Your task to perform on an android device: toggle notification dots Image 0: 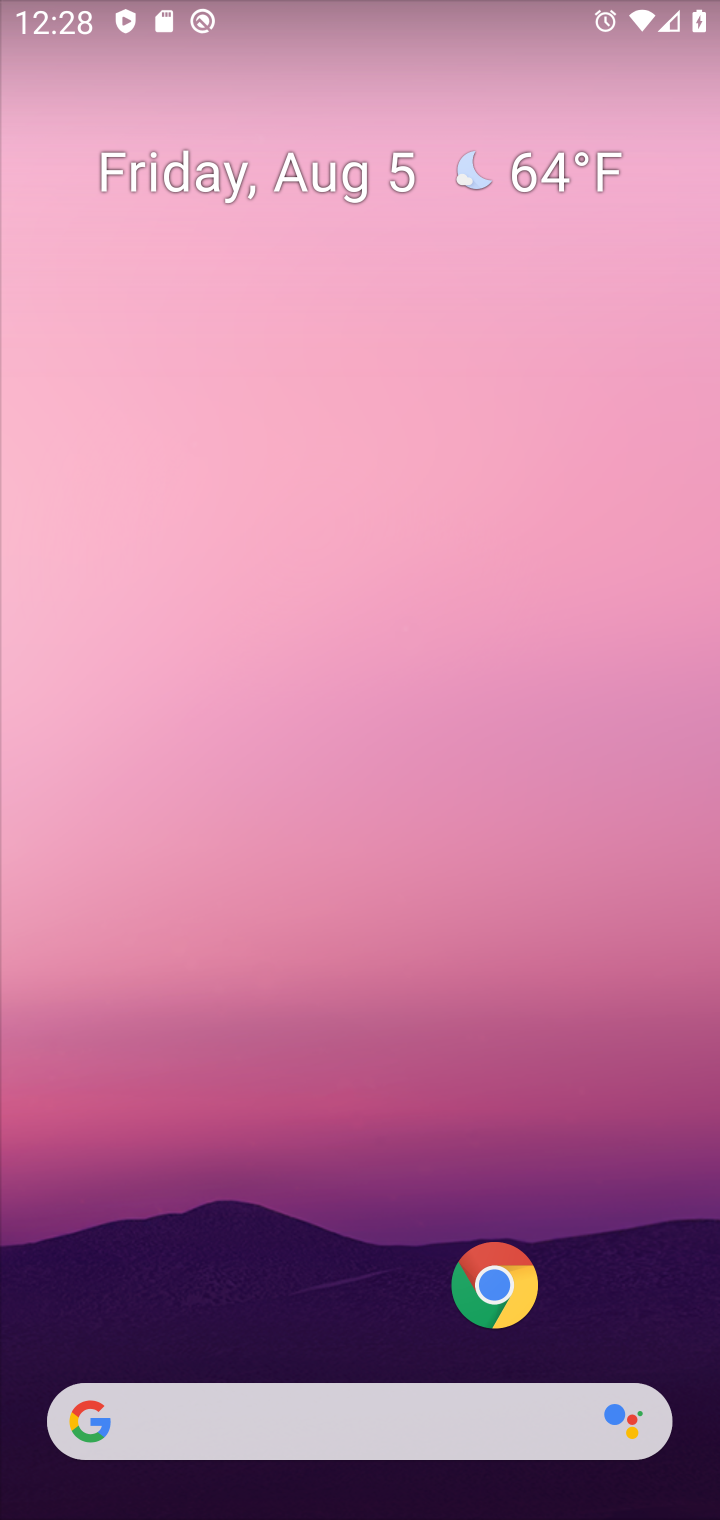
Step 0: drag from (267, 1117) to (389, 15)
Your task to perform on an android device: toggle notification dots Image 1: 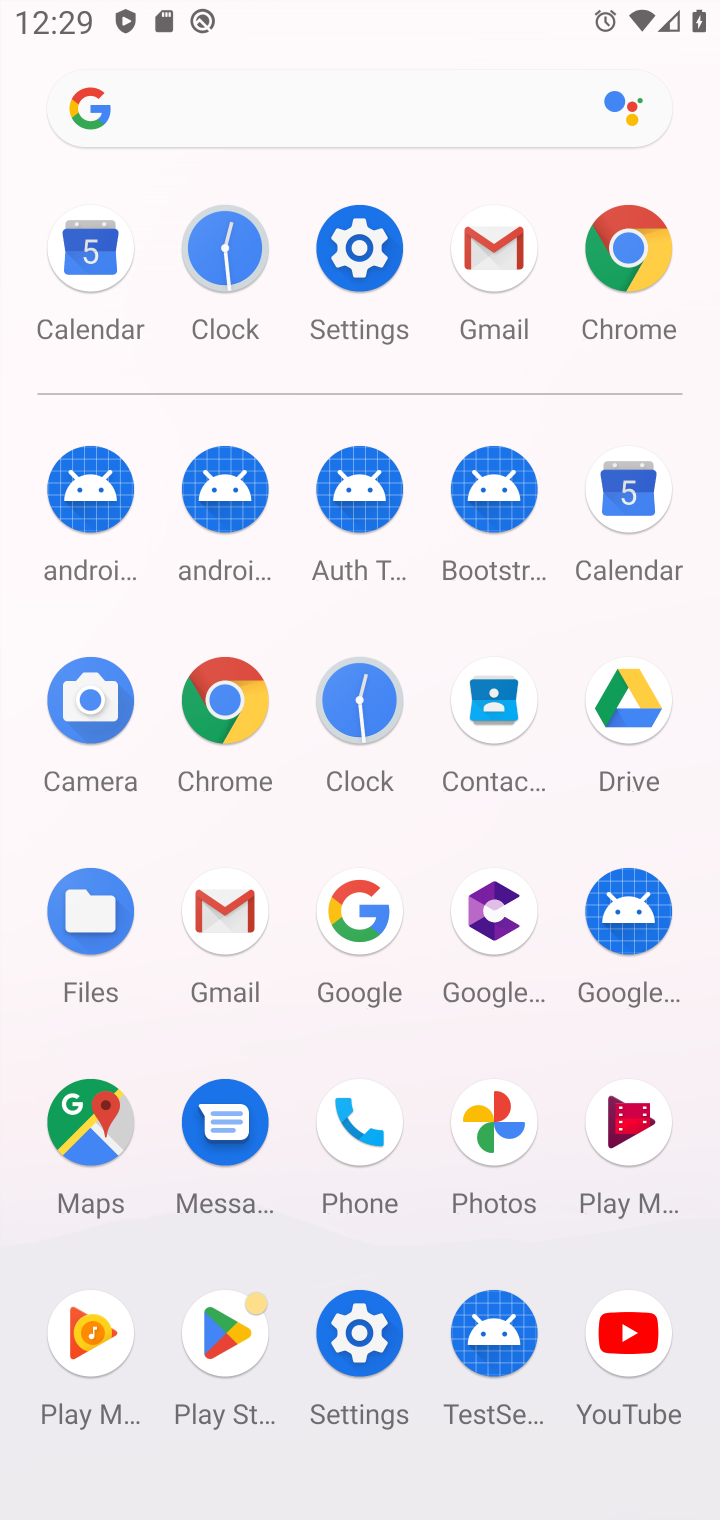
Step 1: click (374, 1332)
Your task to perform on an android device: toggle notification dots Image 2: 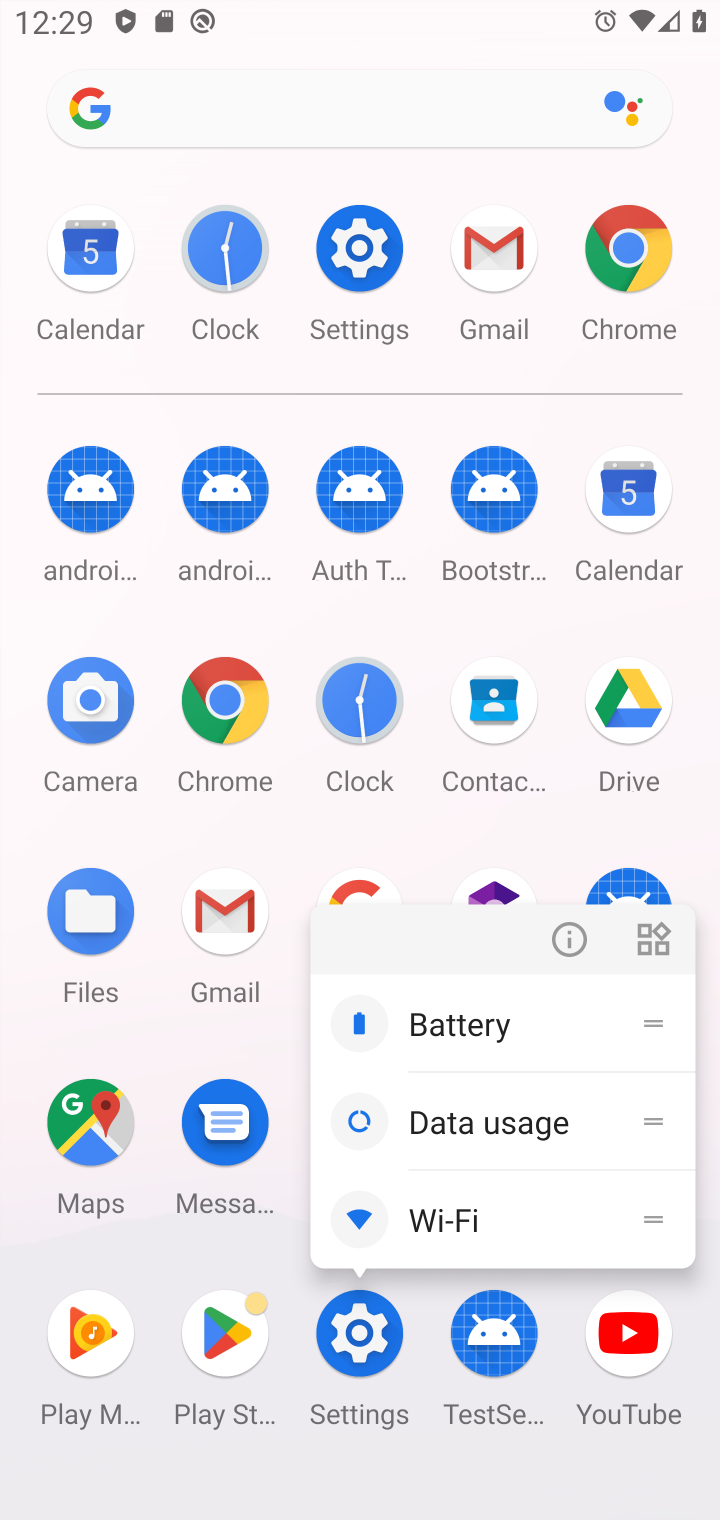
Step 2: click (358, 1358)
Your task to perform on an android device: toggle notification dots Image 3: 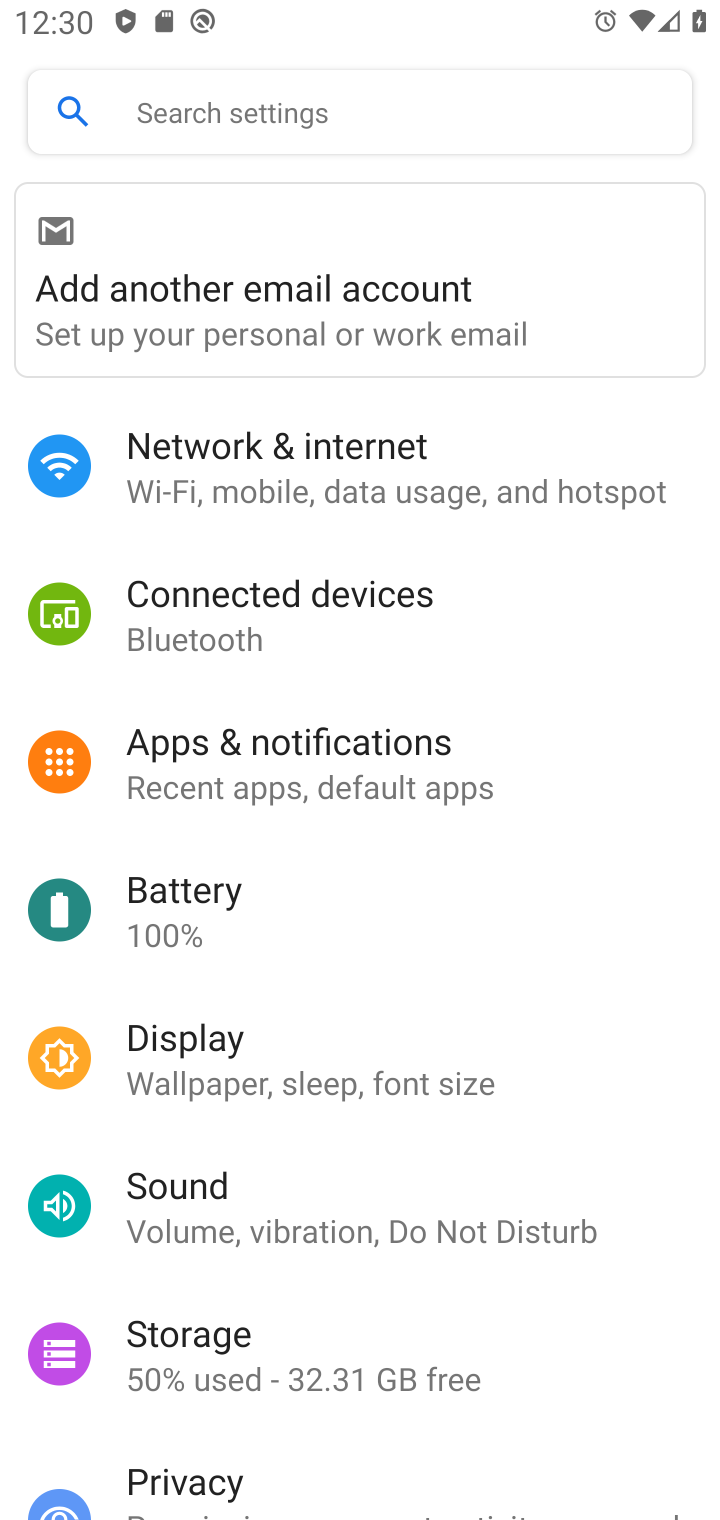
Step 3: drag from (171, 1436) to (167, 481)
Your task to perform on an android device: toggle notification dots Image 4: 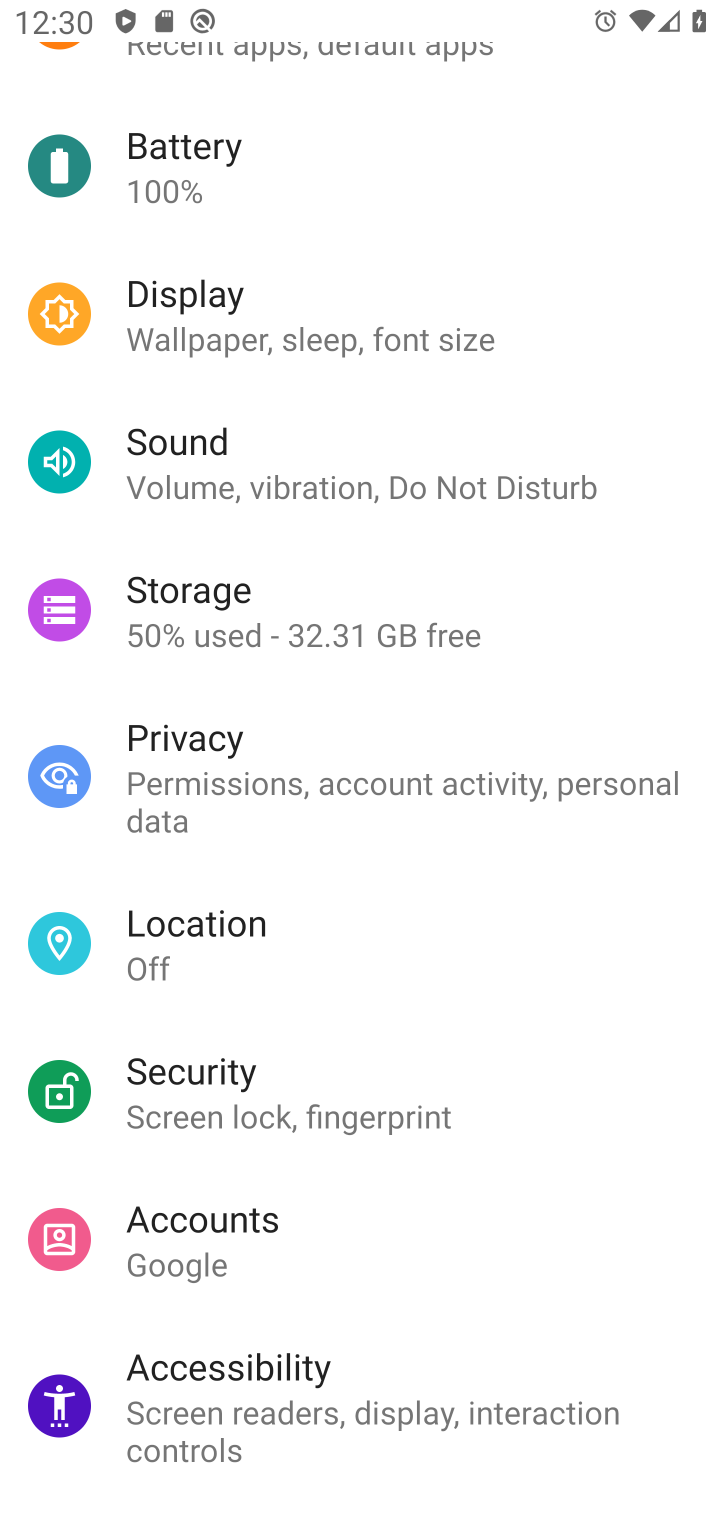
Step 4: drag from (397, 314) to (451, 1303)
Your task to perform on an android device: toggle notification dots Image 5: 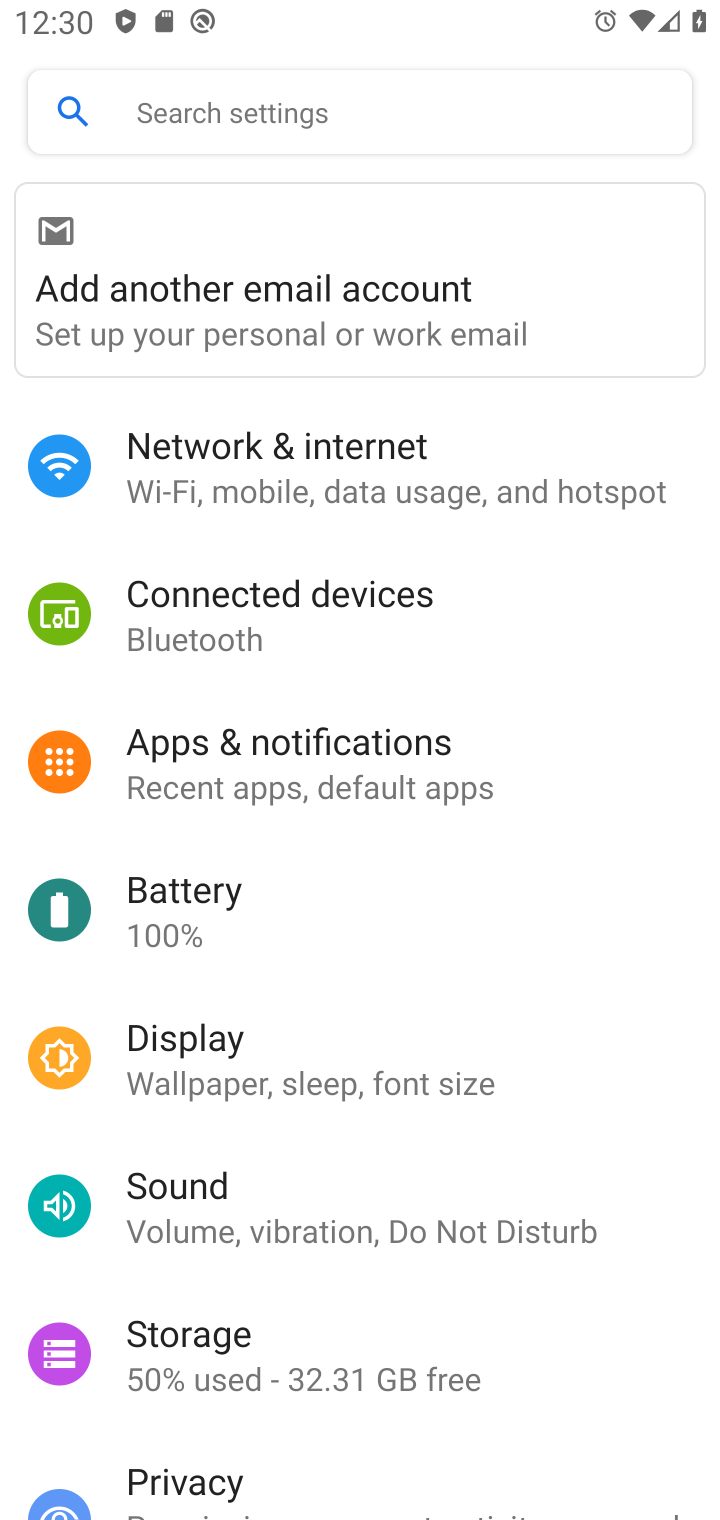
Step 5: click (223, 771)
Your task to perform on an android device: toggle notification dots Image 6: 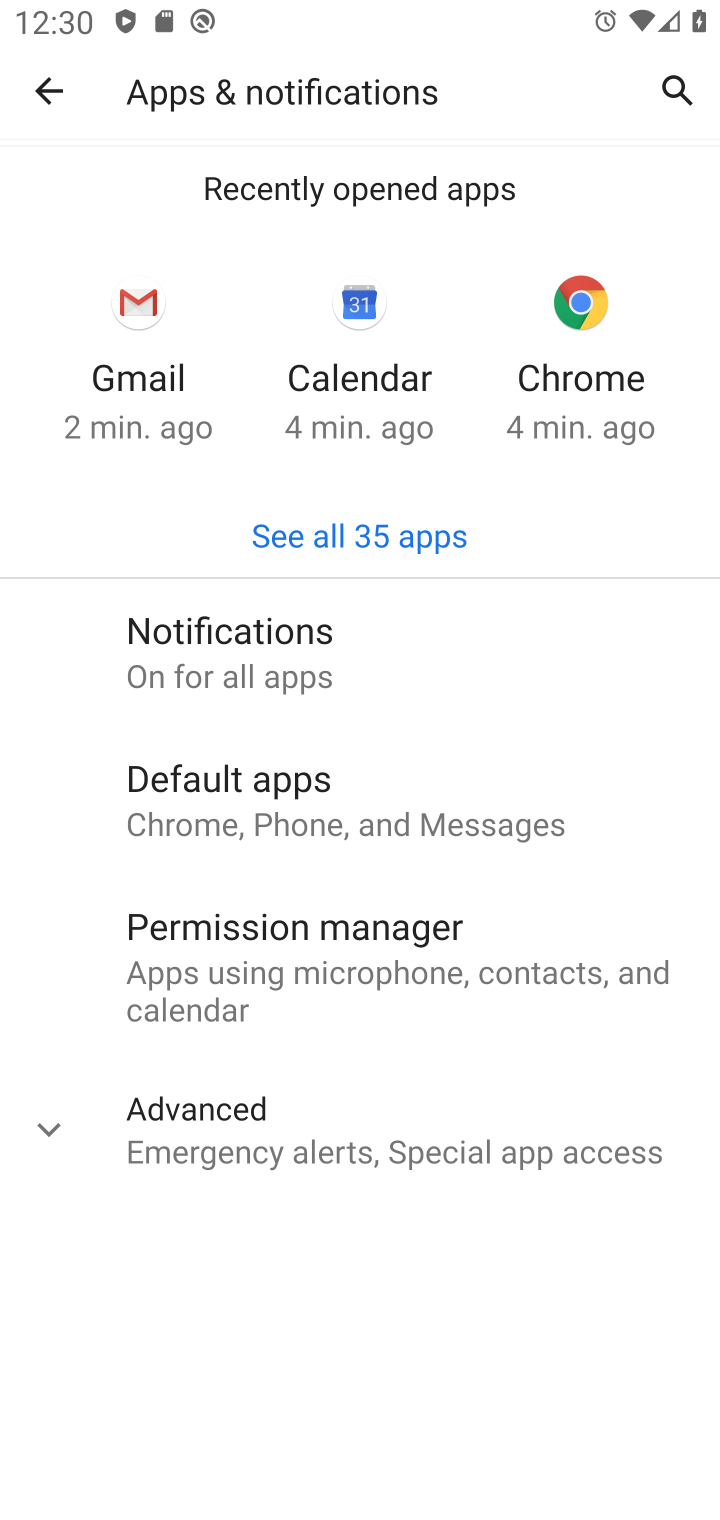
Step 6: click (228, 667)
Your task to perform on an android device: toggle notification dots Image 7: 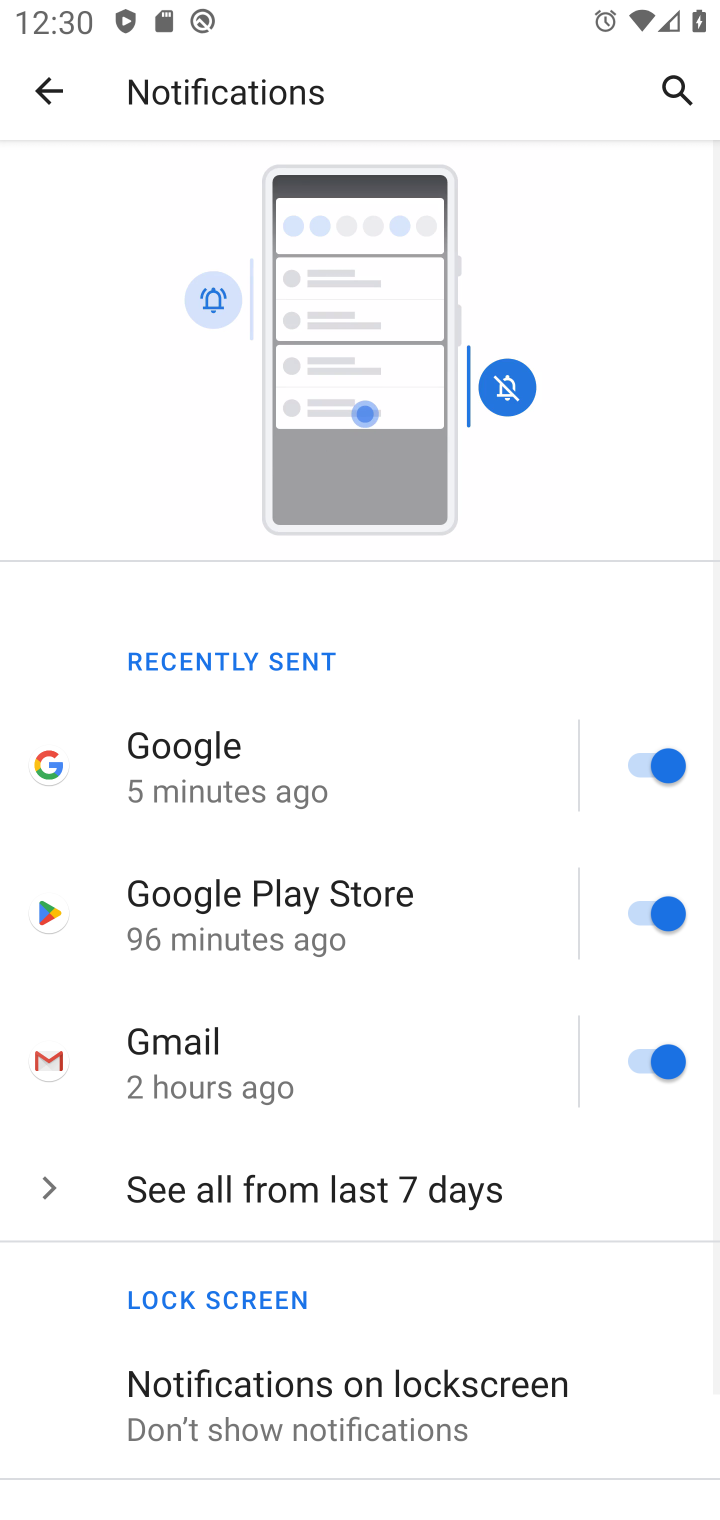
Step 7: drag from (357, 1374) to (99, 484)
Your task to perform on an android device: toggle notification dots Image 8: 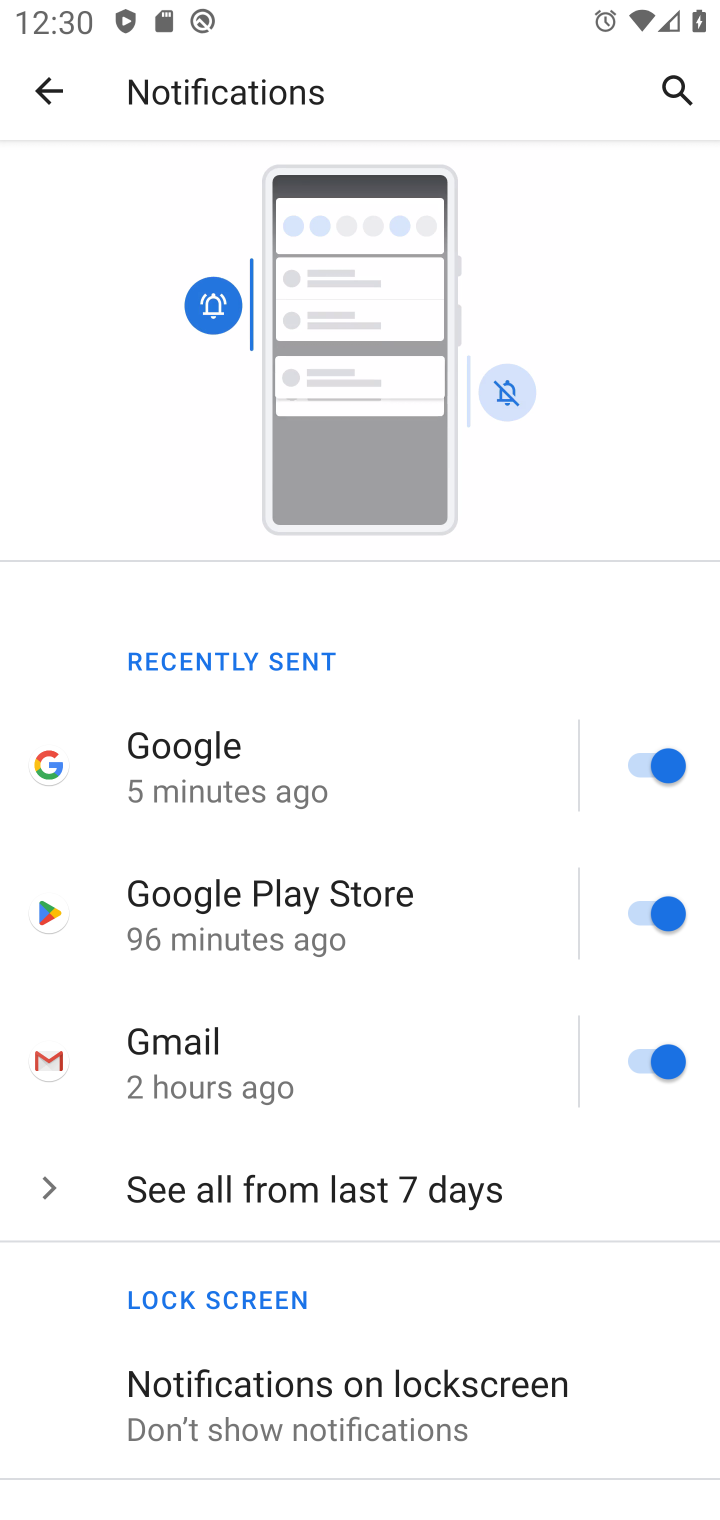
Step 8: click (370, 1420)
Your task to perform on an android device: toggle notification dots Image 9: 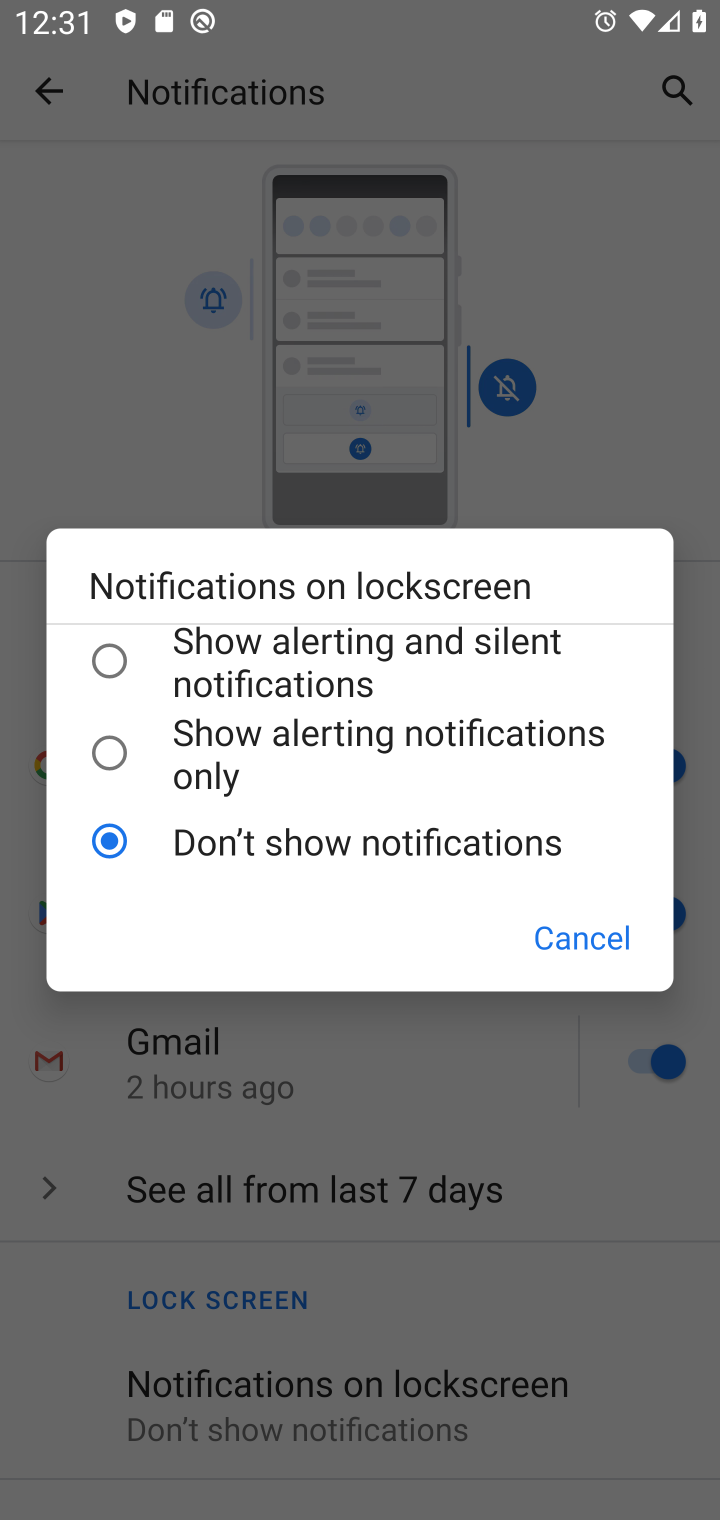
Step 9: click (580, 964)
Your task to perform on an android device: toggle notification dots Image 10: 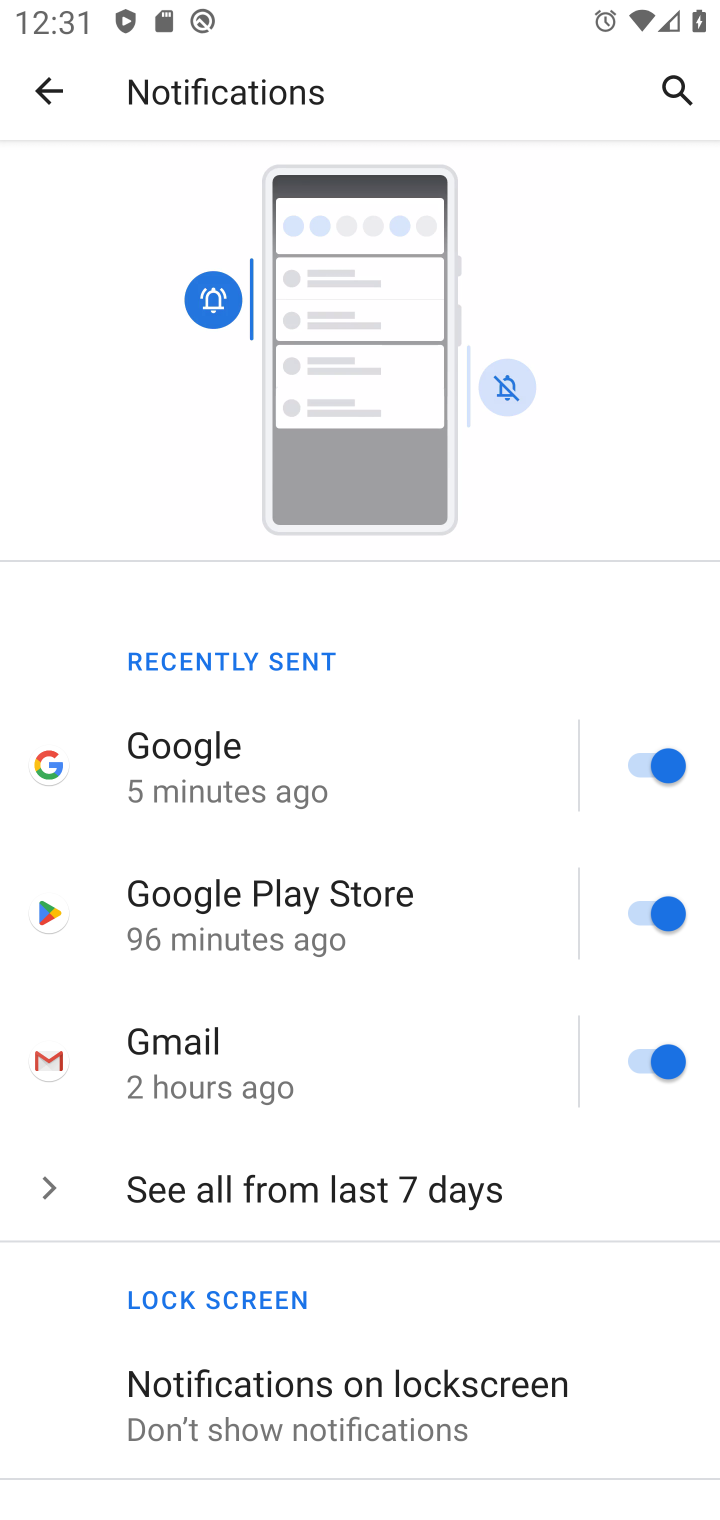
Step 10: drag from (439, 1260) to (430, 141)
Your task to perform on an android device: toggle notification dots Image 11: 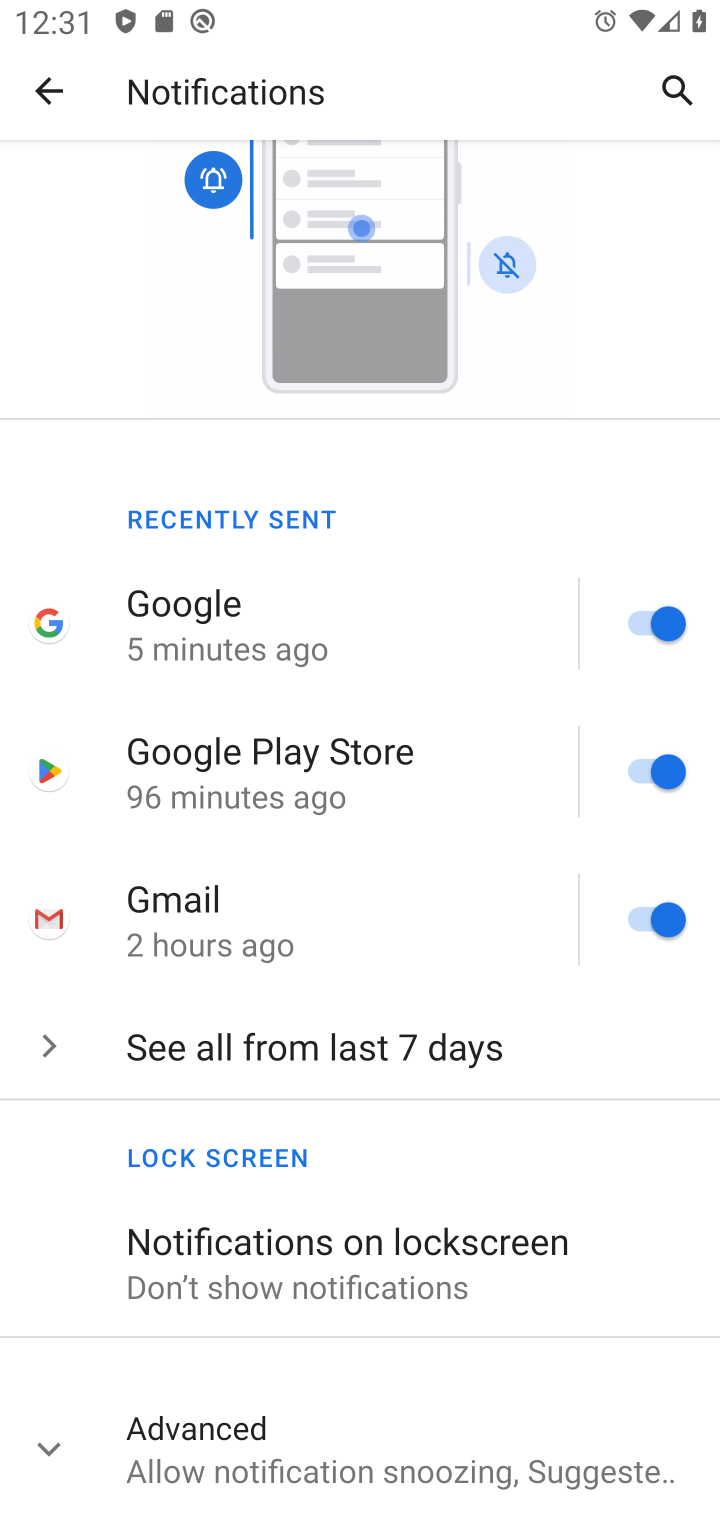
Step 11: click (181, 1467)
Your task to perform on an android device: toggle notification dots Image 12: 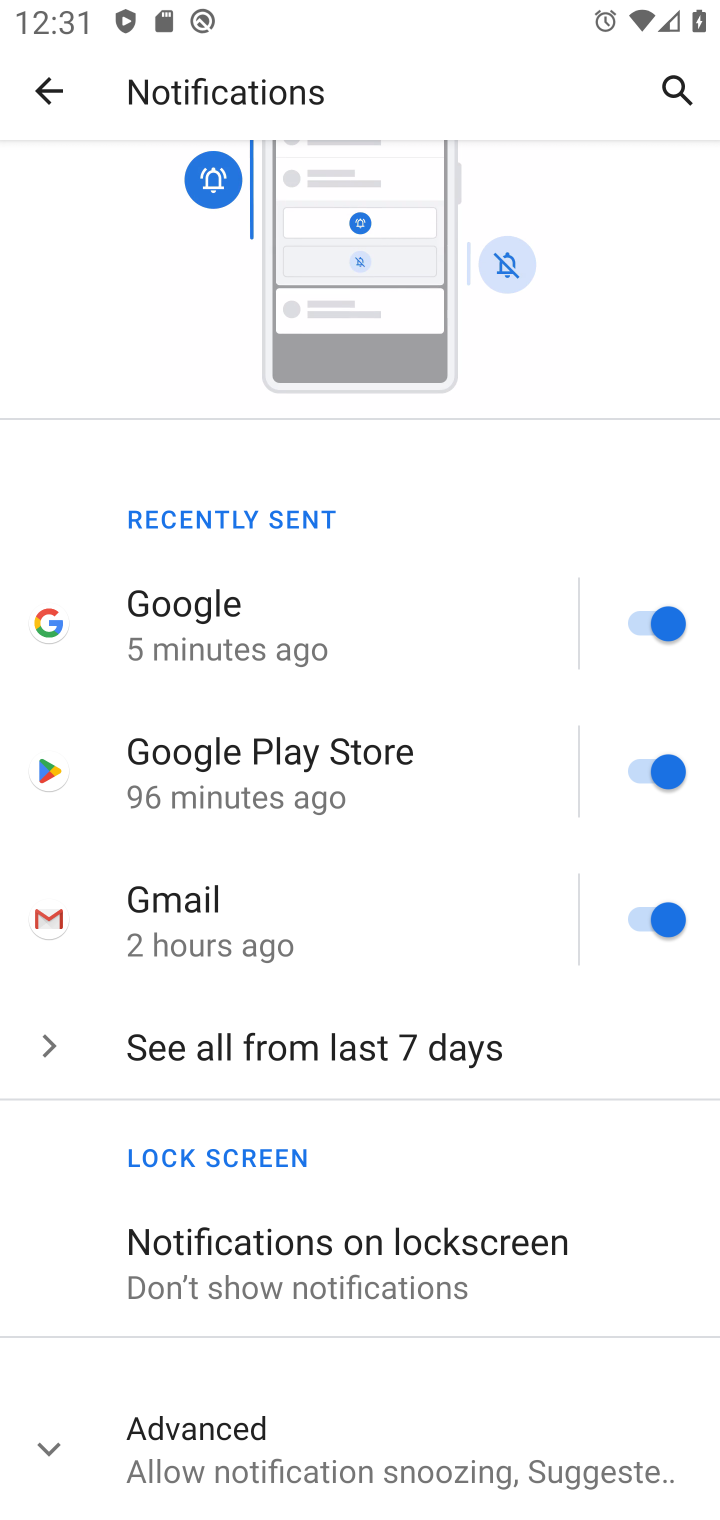
Step 12: drag from (546, 1287) to (375, 405)
Your task to perform on an android device: toggle notification dots Image 13: 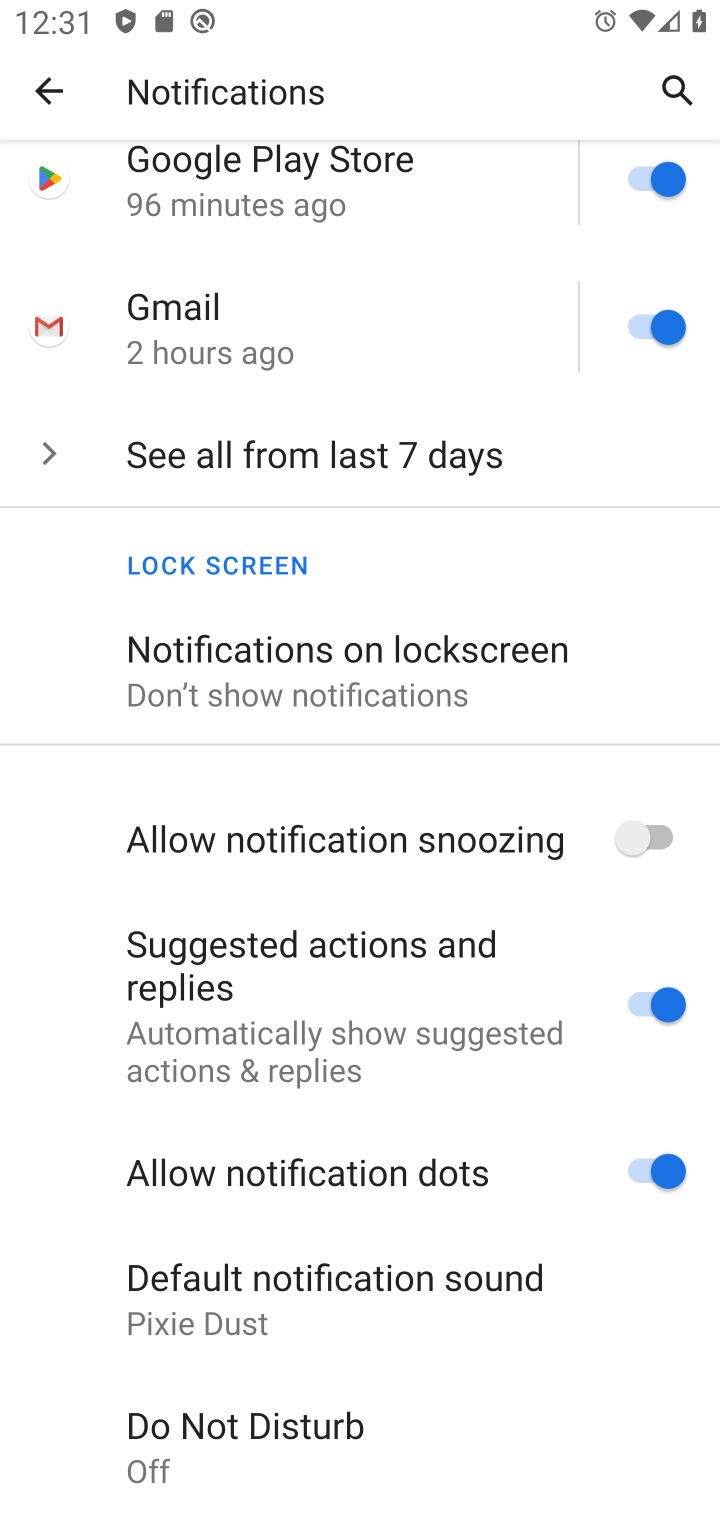
Step 13: drag from (526, 1332) to (366, 742)
Your task to perform on an android device: toggle notification dots Image 14: 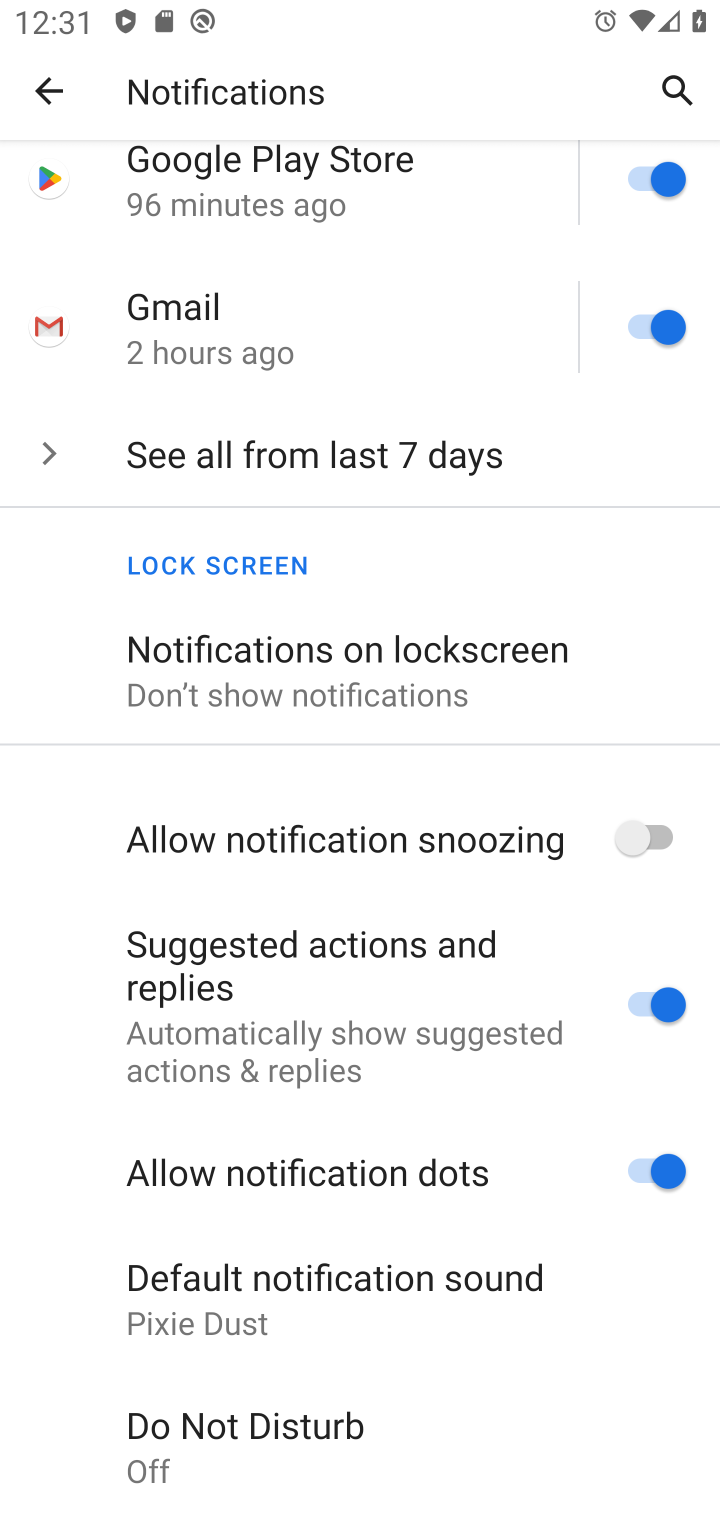
Step 14: click (238, 1177)
Your task to perform on an android device: toggle notification dots Image 15: 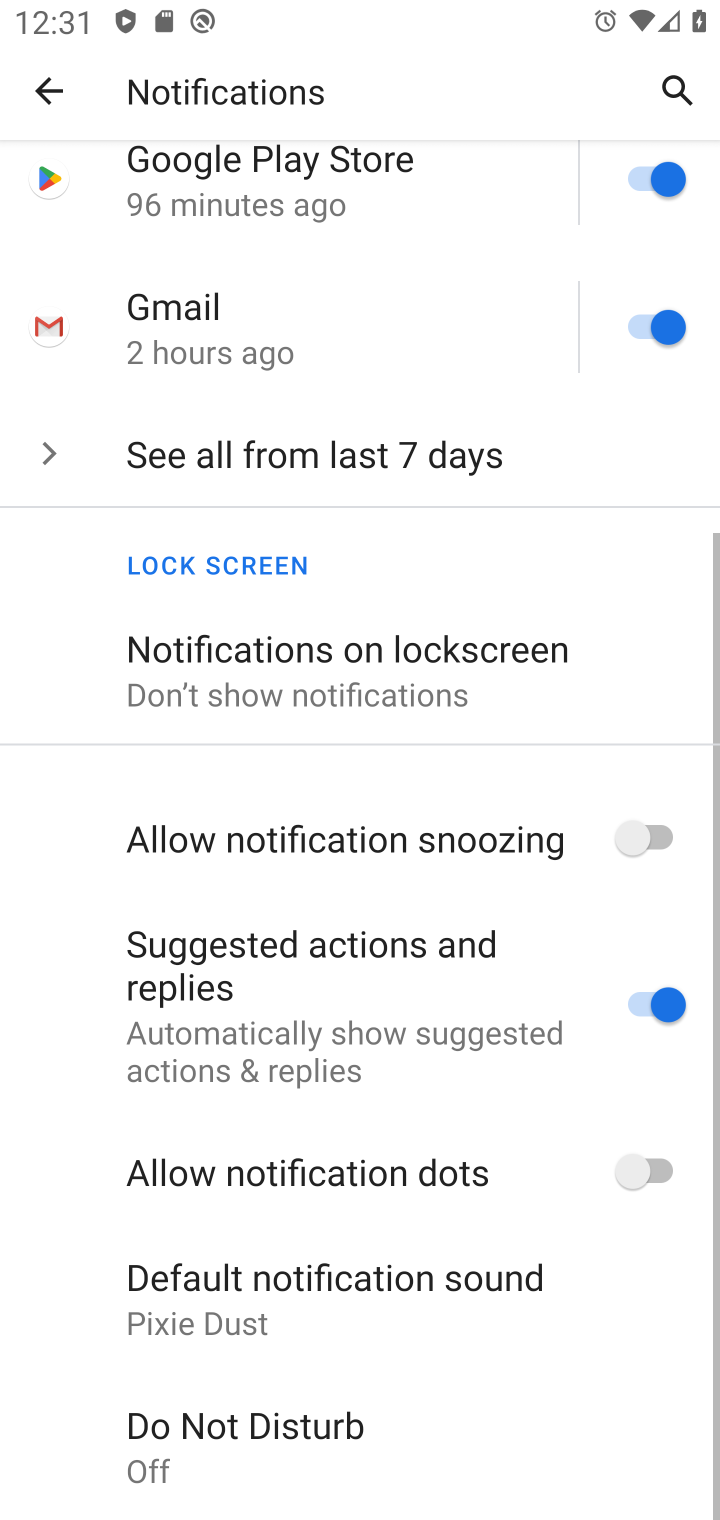
Step 15: task complete